Your task to perform on an android device: open a bookmark in the chrome app Image 0: 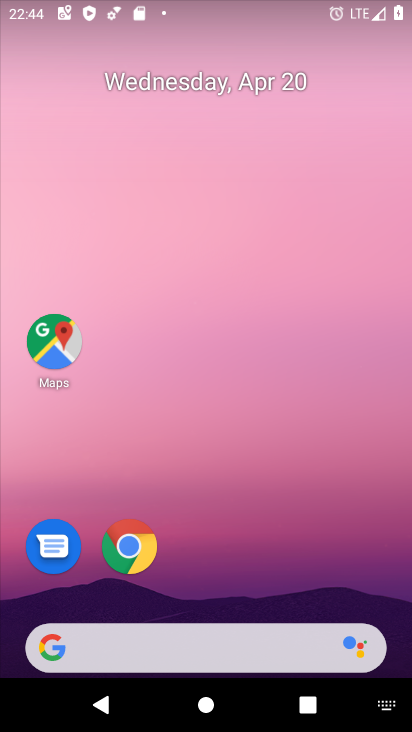
Step 0: press home button
Your task to perform on an android device: open a bookmark in the chrome app Image 1: 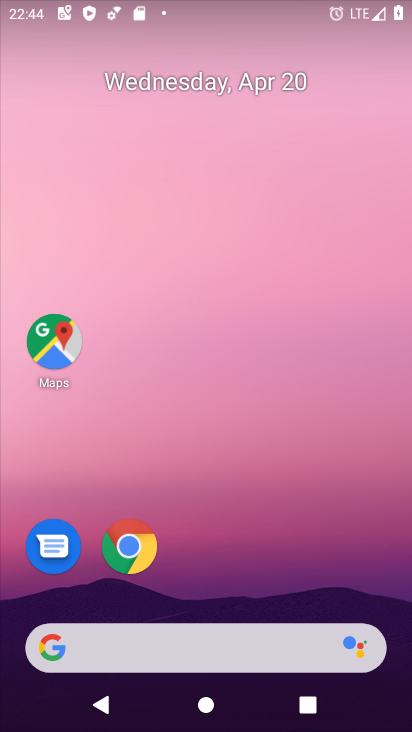
Step 1: click (125, 562)
Your task to perform on an android device: open a bookmark in the chrome app Image 2: 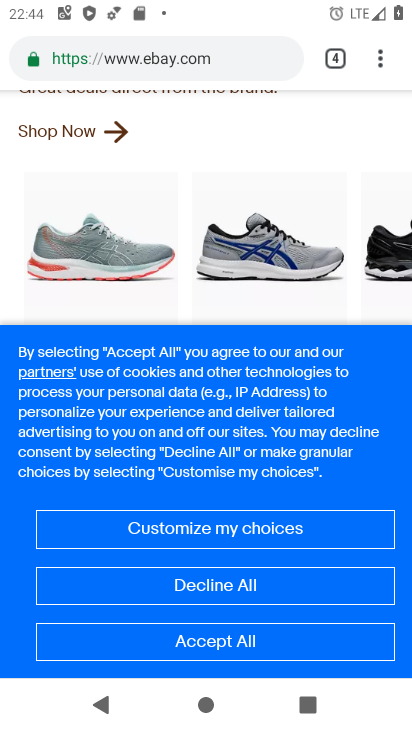
Step 2: task complete